Your task to perform on an android device: empty trash in google photos Image 0: 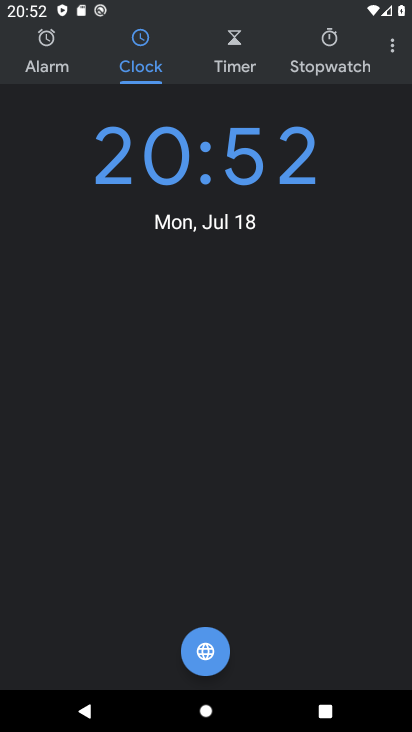
Step 0: press home button
Your task to perform on an android device: empty trash in google photos Image 1: 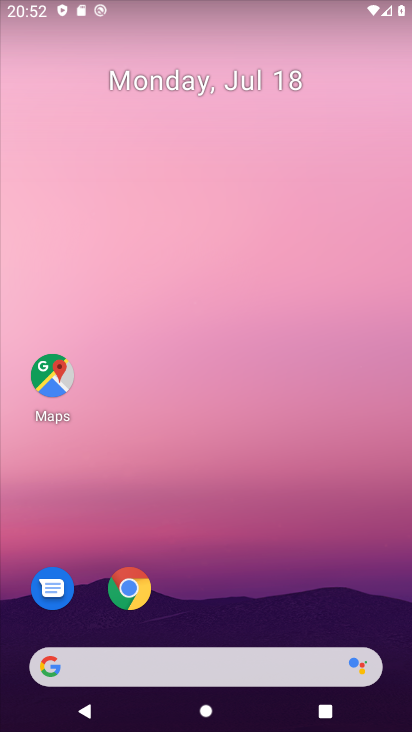
Step 1: drag from (318, 600) to (93, 291)
Your task to perform on an android device: empty trash in google photos Image 2: 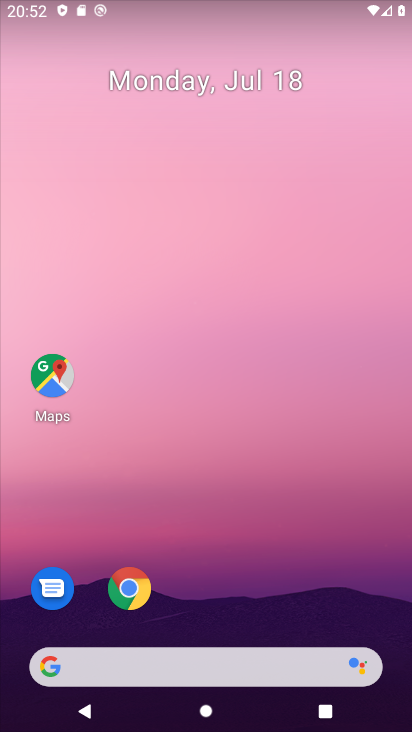
Step 2: drag from (187, 609) to (250, 64)
Your task to perform on an android device: empty trash in google photos Image 3: 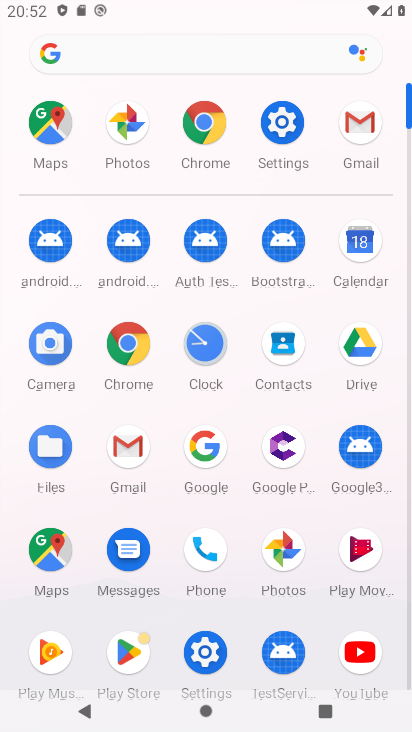
Step 3: click (285, 559)
Your task to perform on an android device: empty trash in google photos Image 4: 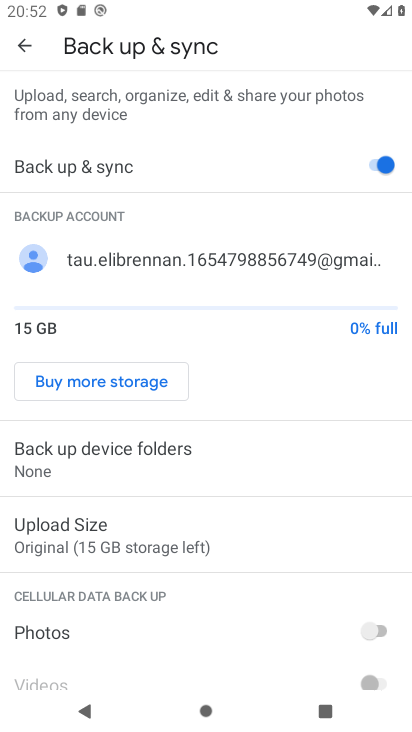
Step 4: click (21, 45)
Your task to perform on an android device: empty trash in google photos Image 5: 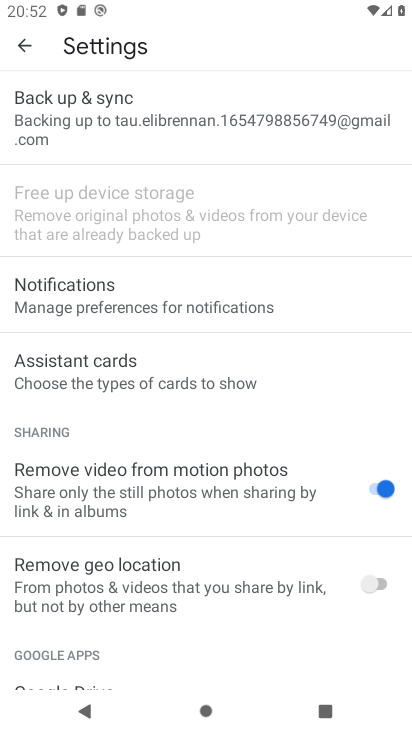
Step 5: click (27, 31)
Your task to perform on an android device: empty trash in google photos Image 6: 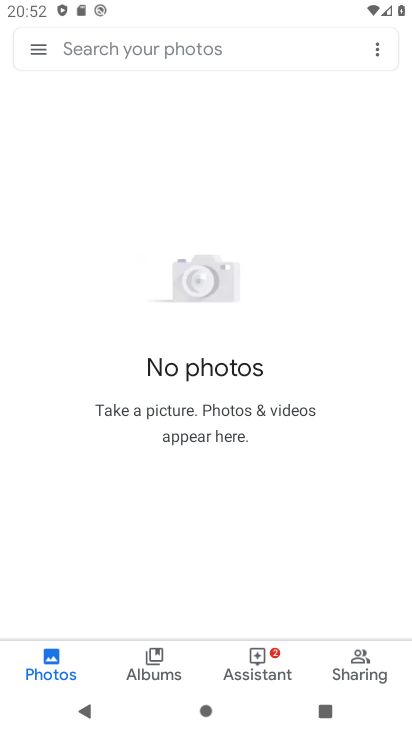
Step 6: click (26, 59)
Your task to perform on an android device: empty trash in google photos Image 7: 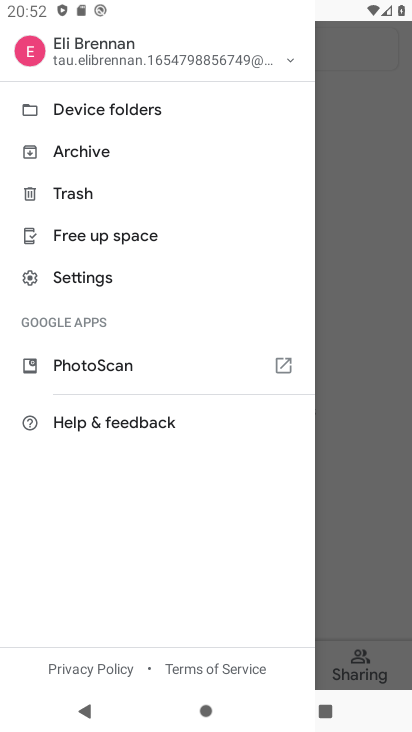
Step 7: click (50, 197)
Your task to perform on an android device: empty trash in google photos Image 8: 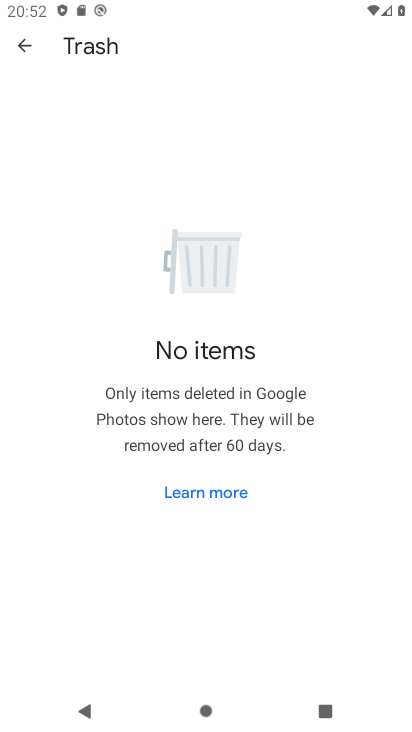
Step 8: task complete